Your task to perform on an android device: Check the weather Image 0: 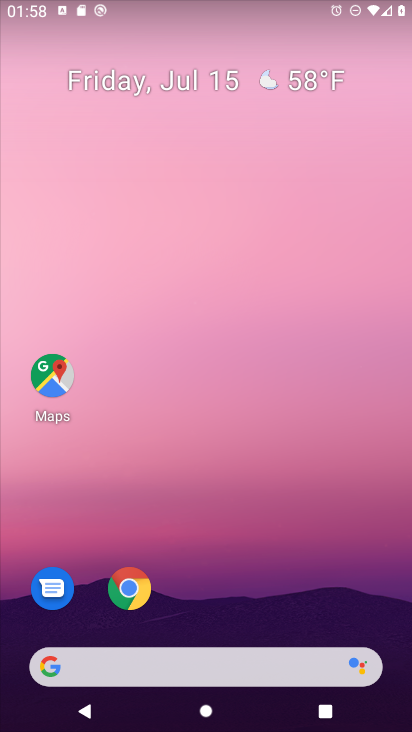
Step 0: click (287, 77)
Your task to perform on an android device: Check the weather Image 1: 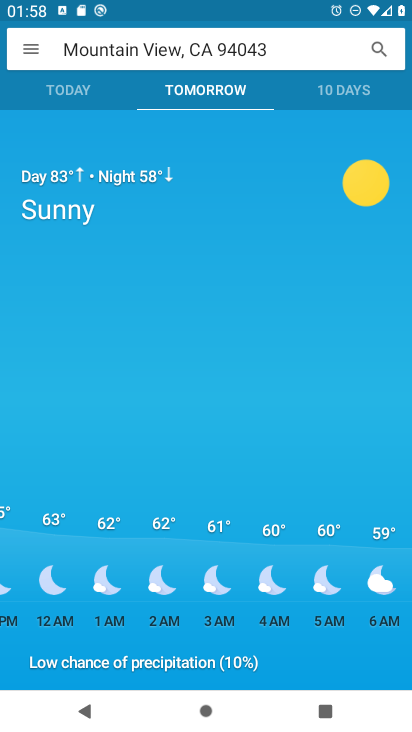
Step 1: click (63, 96)
Your task to perform on an android device: Check the weather Image 2: 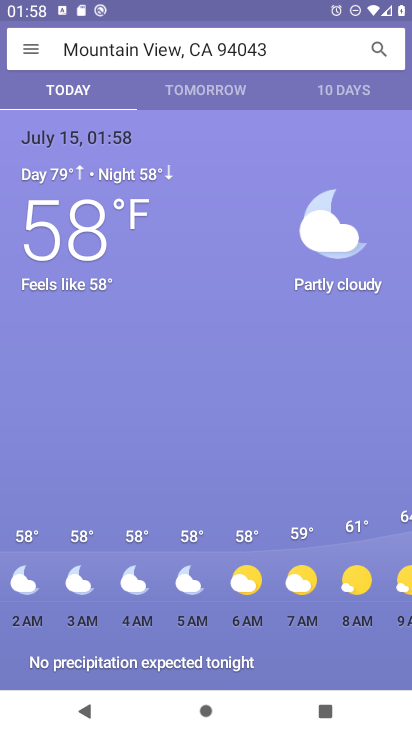
Step 2: click (269, 259)
Your task to perform on an android device: Check the weather Image 3: 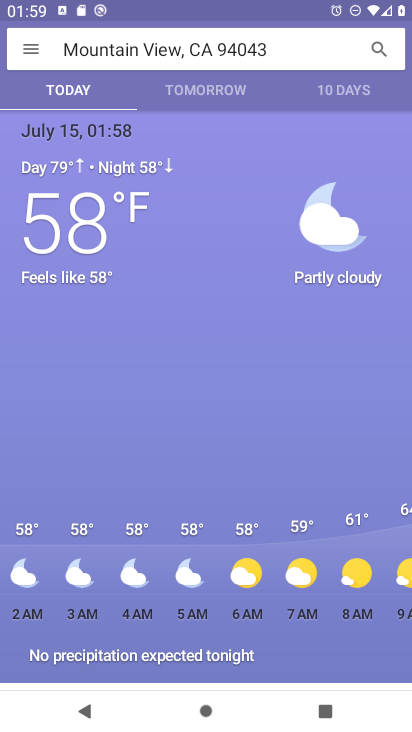
Step 3: task complete